Your task to perform on an android device: Show me the alarms in the clock app Image 0: 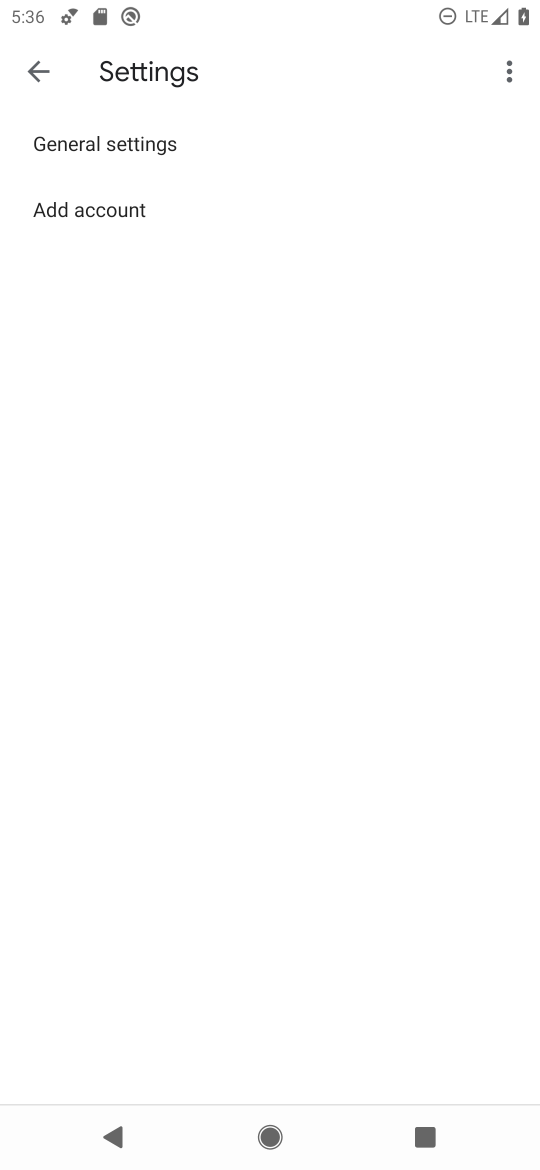
Step 0: press home button
Your task to perform on an android device: Show me the alarms in the clock app Image 1: 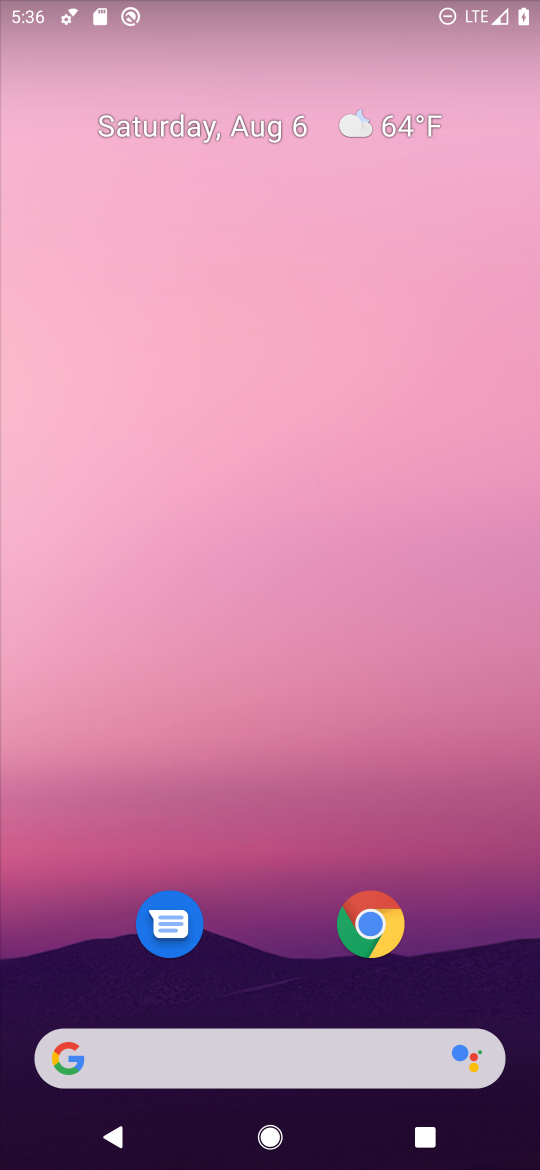
Step 1: drag from (286, 818) to (266, 24)
Your task to perform on an android device: Show me the alarms in the clock app Image 2: 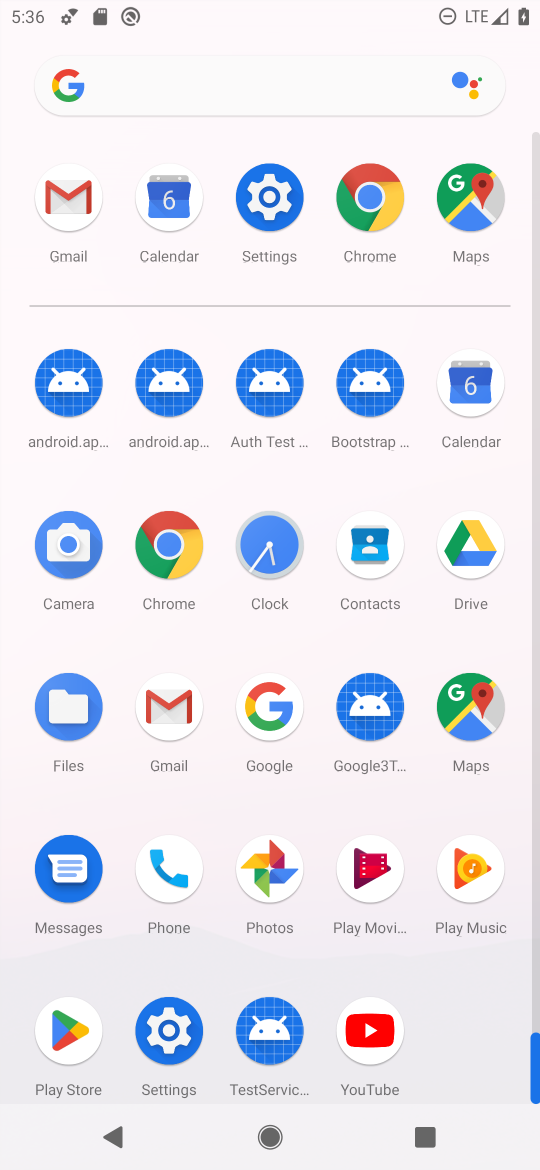
Step 2: click (275, 545)
Your task to perform on an android device: Show me the alarms in the clock app Image 3: 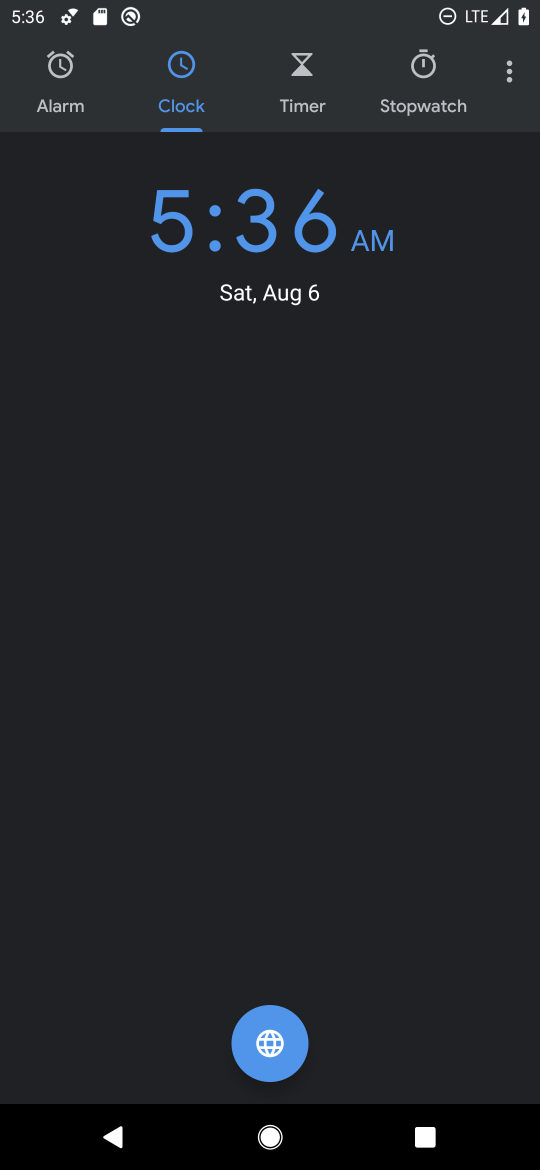
Step 3: click (66, 71)
Your task to perform on an android device: Show me the alarms in the clock app Image 4: 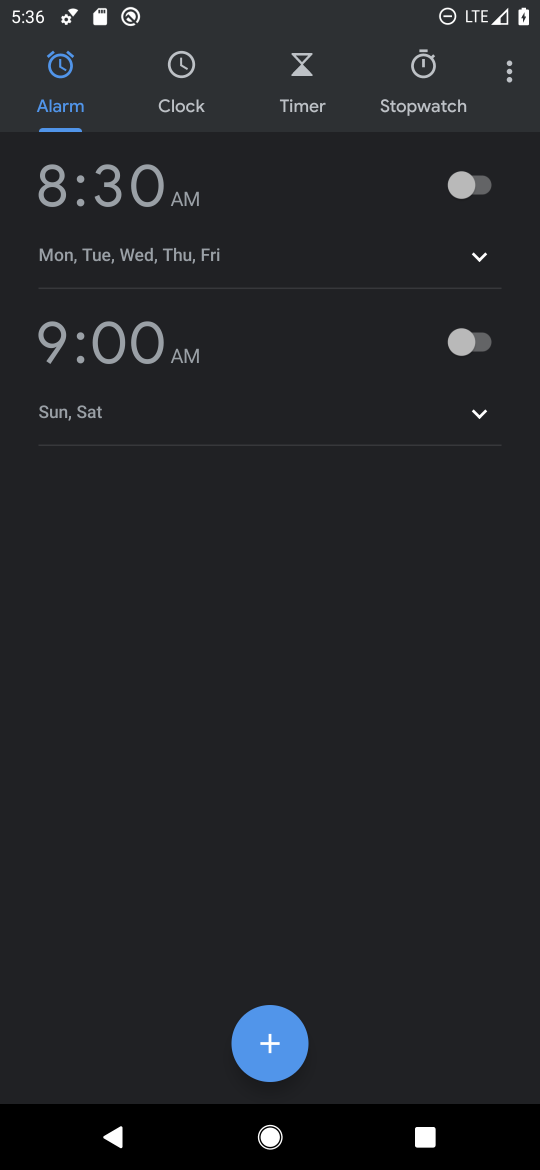
Step 4: task complete